Your task to perform on an android device: Search for sushi restaurants on Maps Image 0: 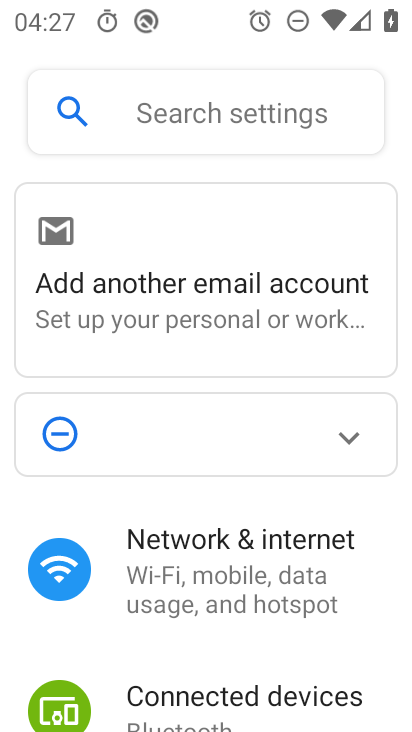
Step 0: press home button
Your task to perform on an android device: Search for sushi restaurants on Maps Image 1: 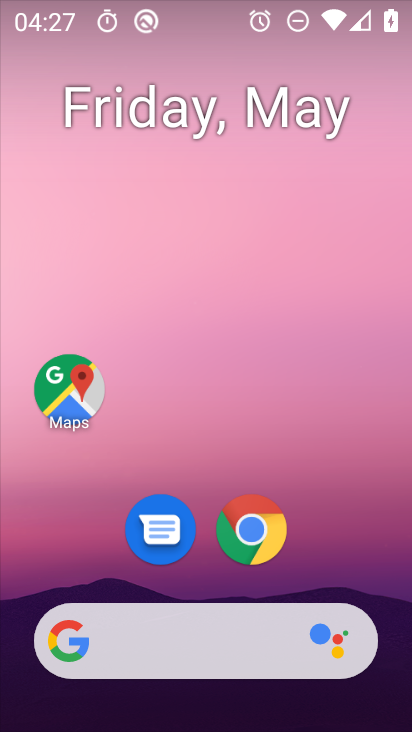
Step 1: click (81, 398)
Your task to perform on an android device: Search for sushi restaurants on Maps Image 2: 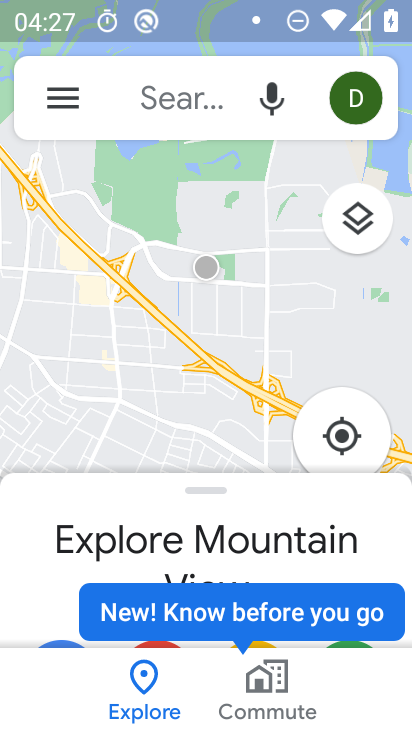
Step 2: click (127, 101)
Your task to perform on an android device: Search for sushi restaurants on Maps Image 3: 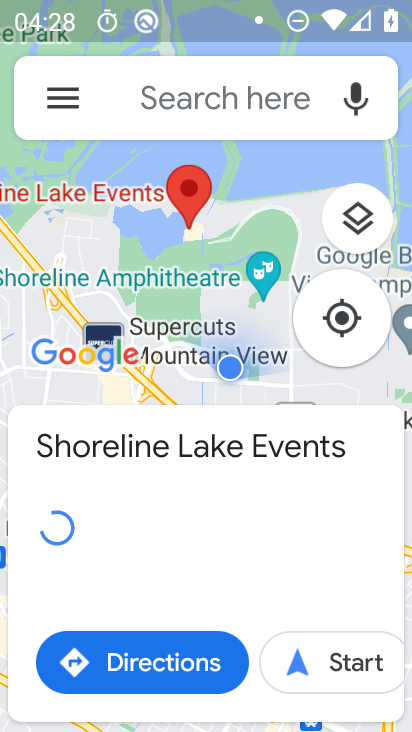
Step 3: click (183, 108)
Your task to perform on an android device: Search for sushi restaurants on Maps Image 4: 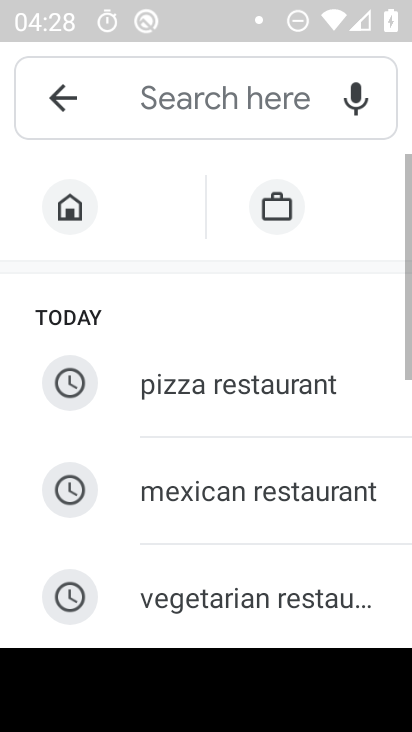
Step 4: type "sushi restaurants"
Your task to perform on an android device: Search for sushi restaurants on Maps Image 5: 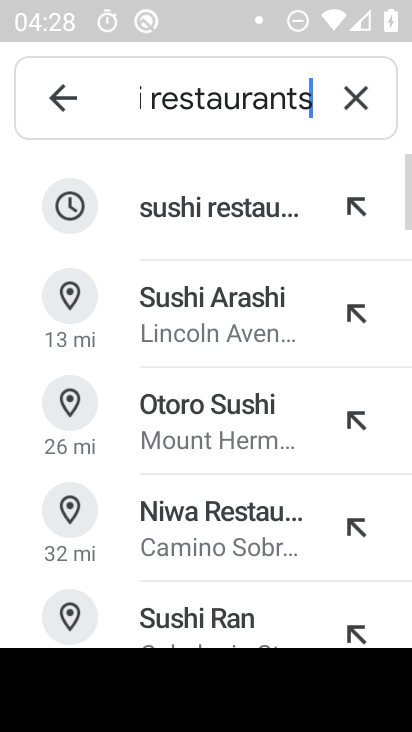
Step 5: click (195, 195)
Your task to perform on an android device: Search for sushi restaurants on Maps Image 6: 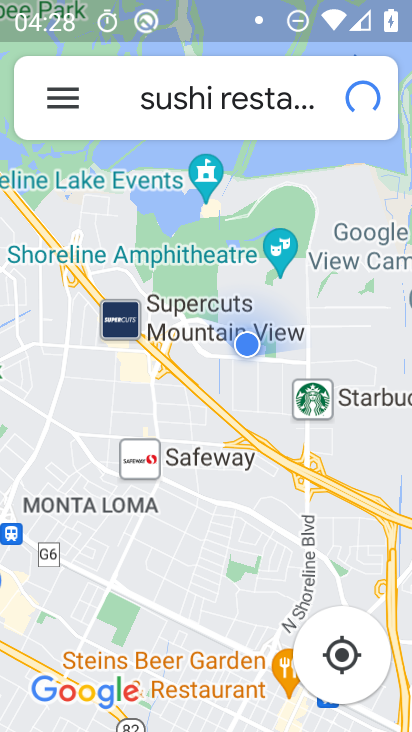
Step 6: task complete